Your task to perform on an android device: check out phone information Image 0: 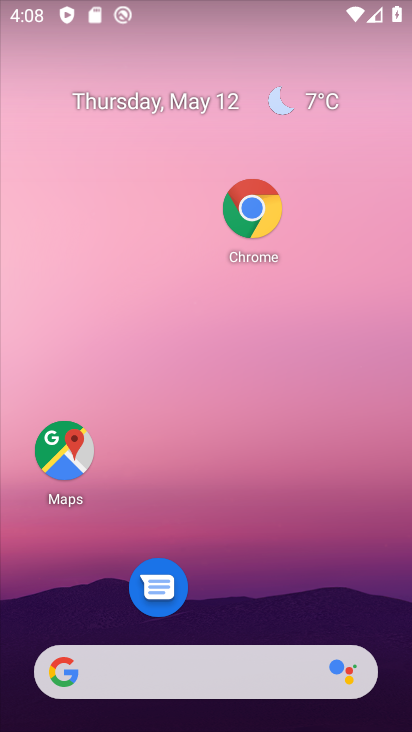
Step 0: drag from (244, 593) to (267, 134)
Your task to perform on an android device: check out phone information Image 1: 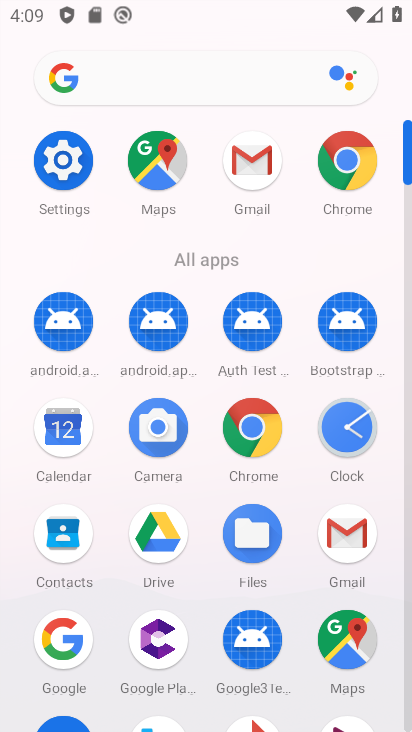
Step 1: click (56, 166)
Your task to perform on an android device: check out phone information Image 2: 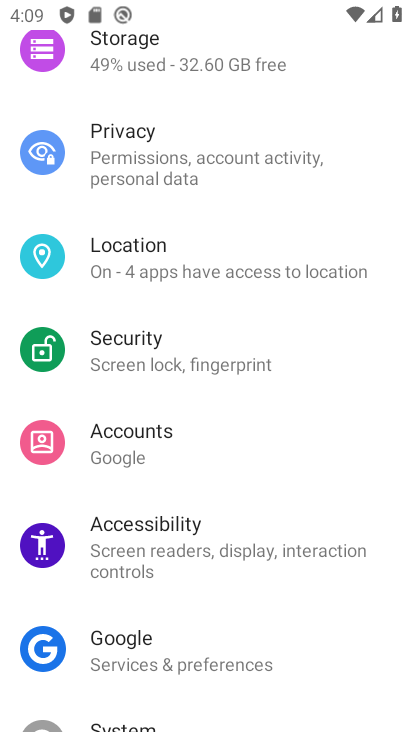
Step 2: drag from (160, 675) to (214, 176)
Your task to perform on an android device: check out phone information Image 3: 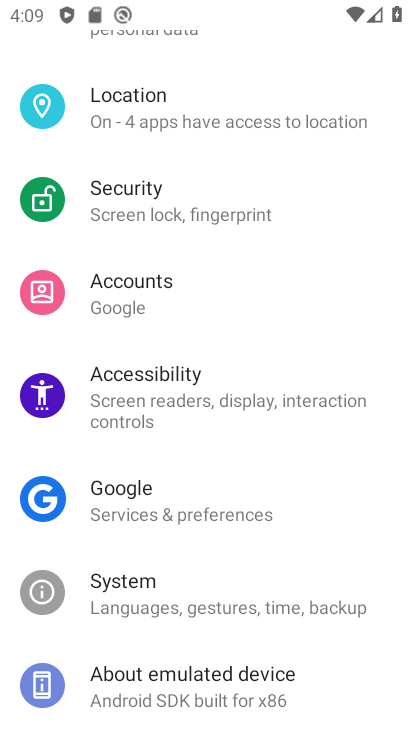
Step 3: click (154, 692)
Your task to perform on an android device: check out phone information Image 4: 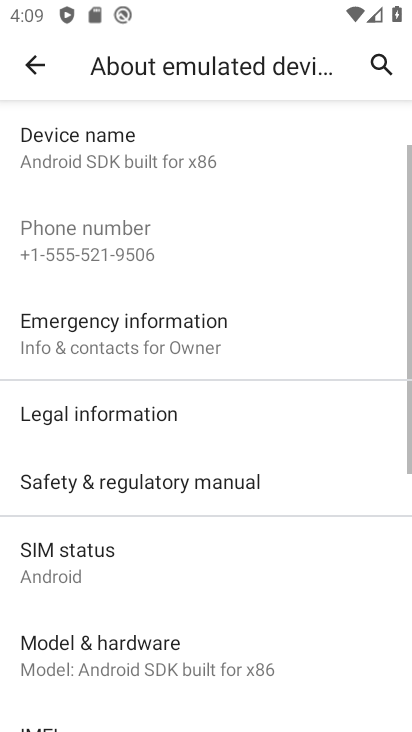
Step 4: task complete